Your task to perform on an android device: Go to Yahoo.com Image 0: 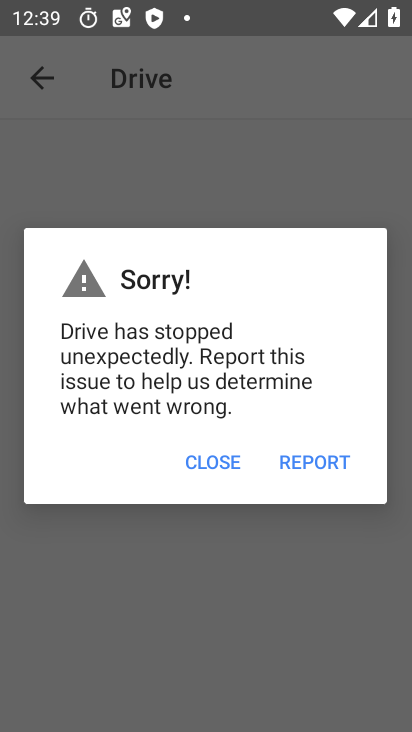
Step 0: press home button
Your task to perform on an android device: Go to Yahoo.com Image 1: 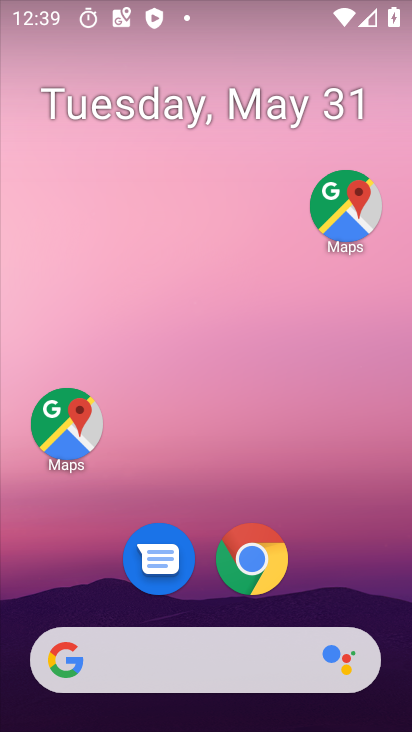
Step 1: drag from (326, 571) to (274, 127)
Your task to perform on an android device: Go to Yahoo.com Image 2: 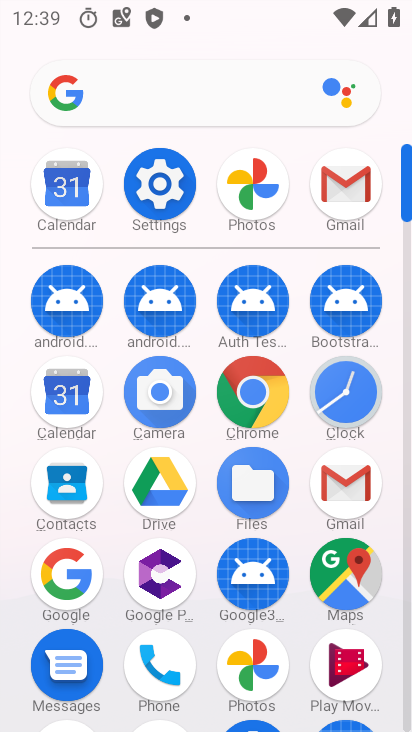
Step 2: click (261, 390)
Your task to perform on an android device: Go to Yahoo.com Image 3: 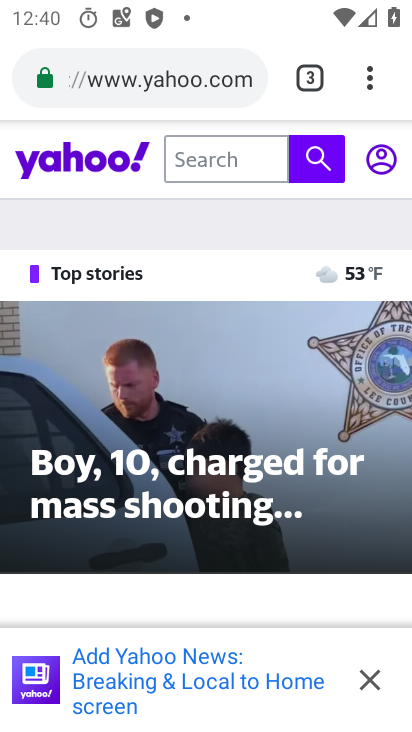
Step 3: task complete